Your task to perform on an android device: Open my contact list Image 0: 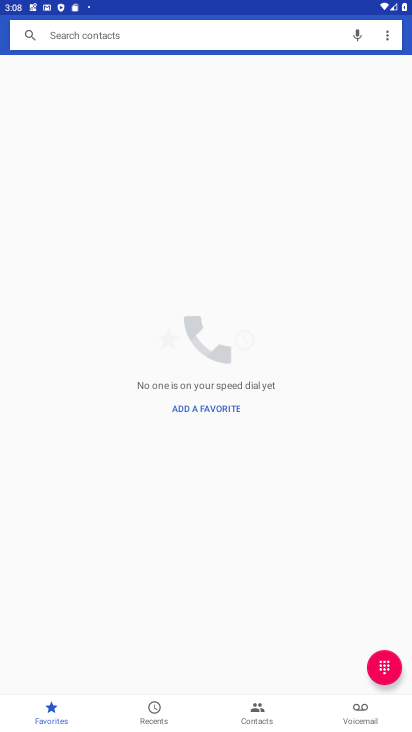
Step 0: click (259, 712)
Your task to perform on an android device: Open my contact list Image 1: 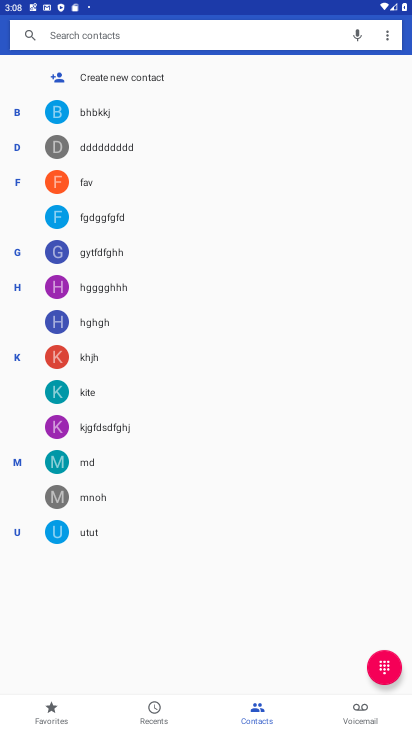
Step 1: task complete